Your task to perform on an android device: Open the calendar and show me this week's events Image 0: 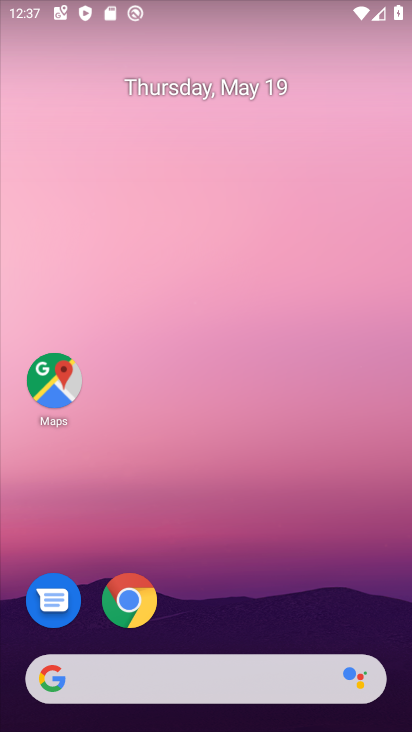
Step 0: drag from (285, 609) to (198, 7)
Your task to perform on an android device: Open the calendar and show me this week's events Image 1: 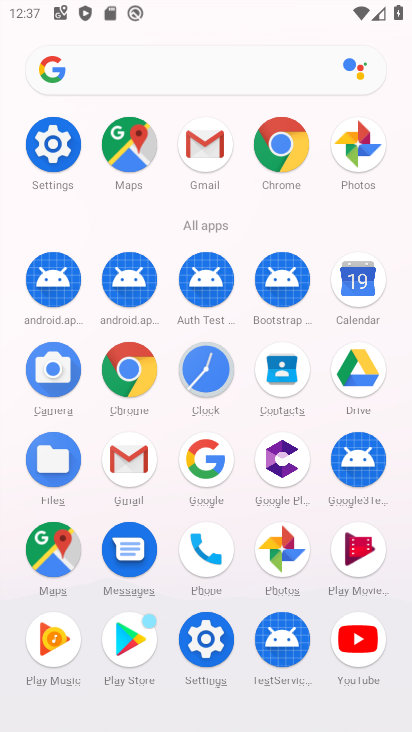
Step 1: click (362, 306)
Your task to perform on an android device: Open the calendar and show me this week's events Image 2: 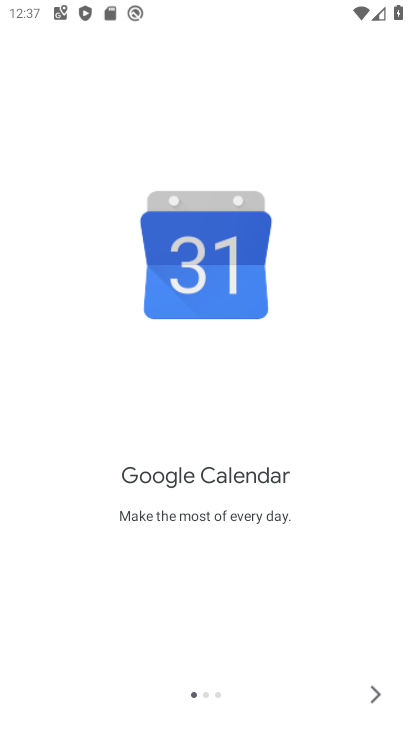
Step 2: click (364, 716)
Your task to perform on an android device: Open the calendar and show me this week's events Image 3: 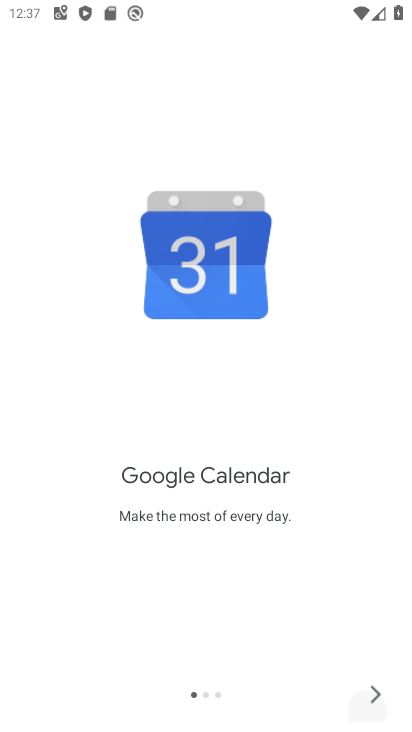
Step 3: click (364, 716)
Your task to perform on an android device: Open the calendar and show me this week's events Image 4: 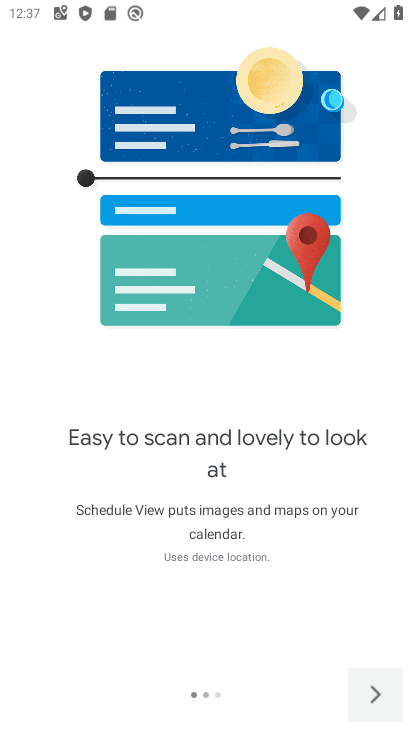
Step 4: click (364, 716)
Your task to perform on an android device: Open the calendar and show me this week's events Image 5: 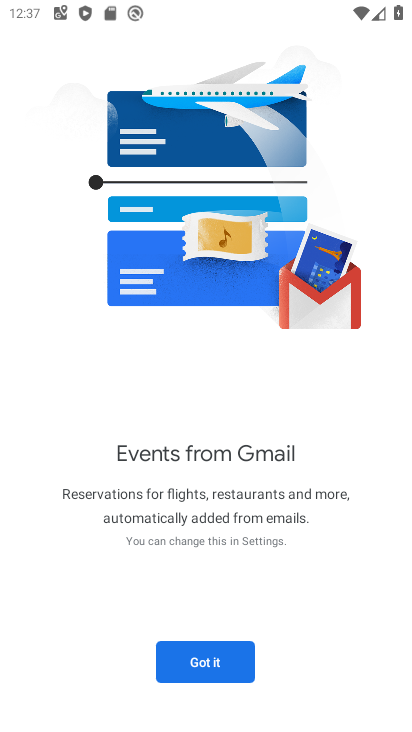
Step 5: click (205, 661)
Your task to perform on an android device: Open the calendar and show me this week's events Image 6: 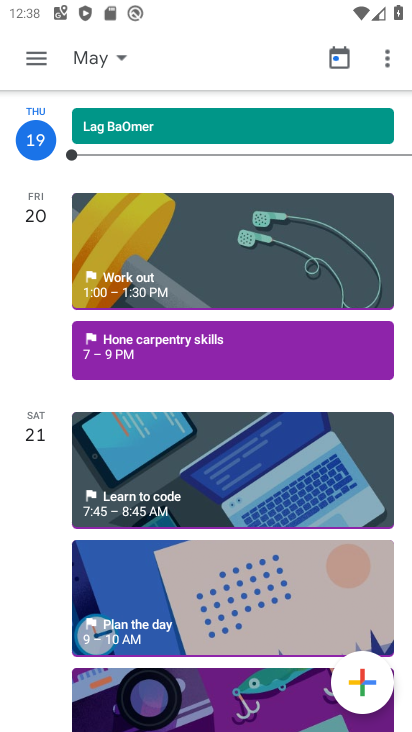
Step 6: click (46, 61)
Your task to perform on an android device: Open the calendar and show me this week's events Image 7: 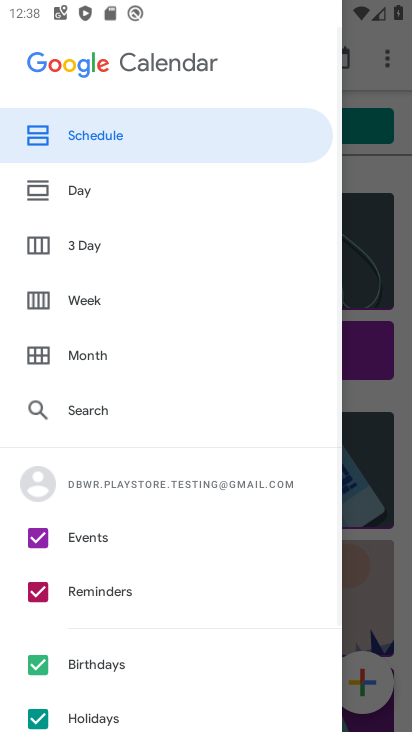
Step 7: click (113, 369)
Your task to perform on an android device: Open the calendar and show me this week's events Image 8: 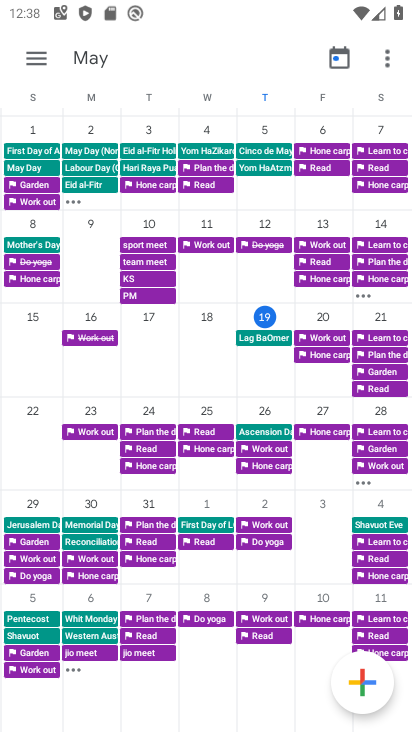
Step 8: task complete